Your task to perform on an android device: What's the weather? Image 0: 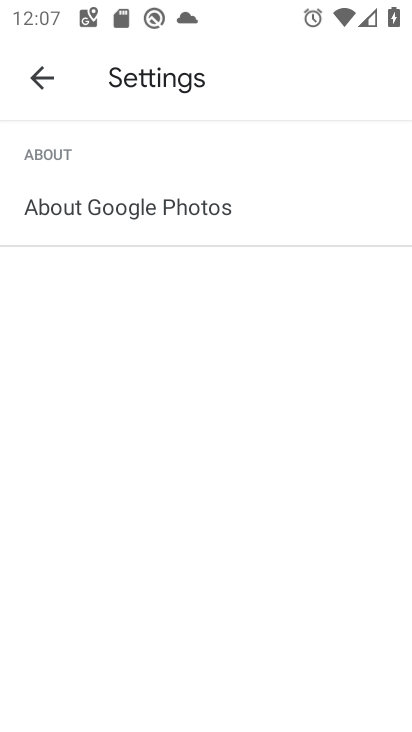
Step 0: press home button
Your task to perform on an android device: What's the weather? Image 1: 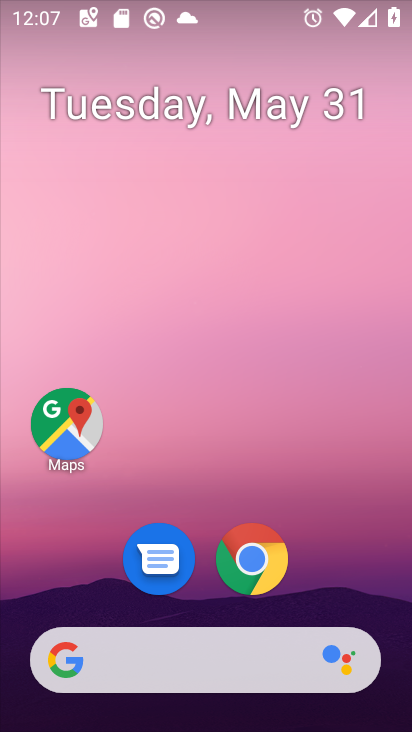
Step 1: click (287, 664)
Your task to perform on an android device: What's the weather? Image 2: 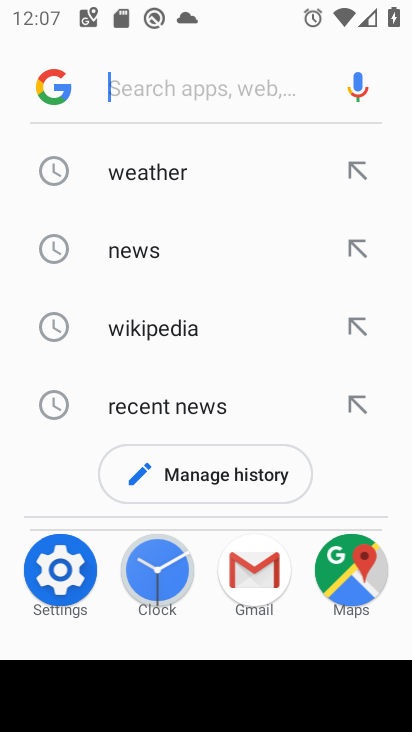
Step 2: click (193, 186)
Your task to perform on an android device: What's the weather? Image 3: 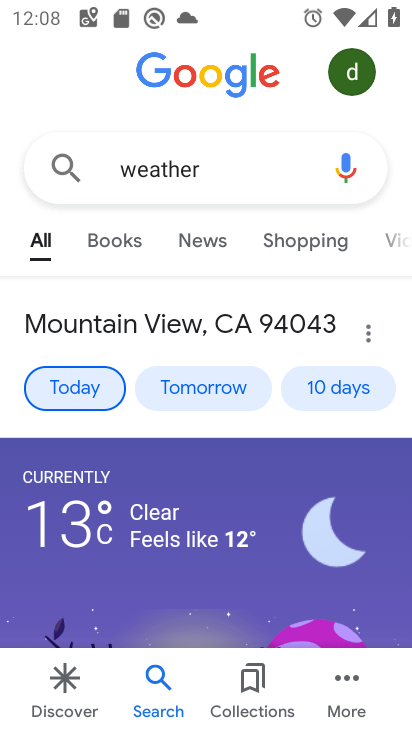
Step 3: task complete